Your task to perform on an android device: Open Google Maps Image 0: 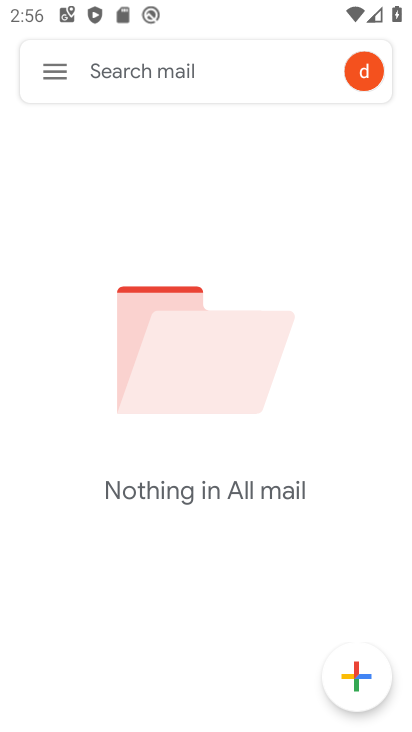
Step 0: press home button
Your task to perform on an android device: Open Google Maps Image 1: 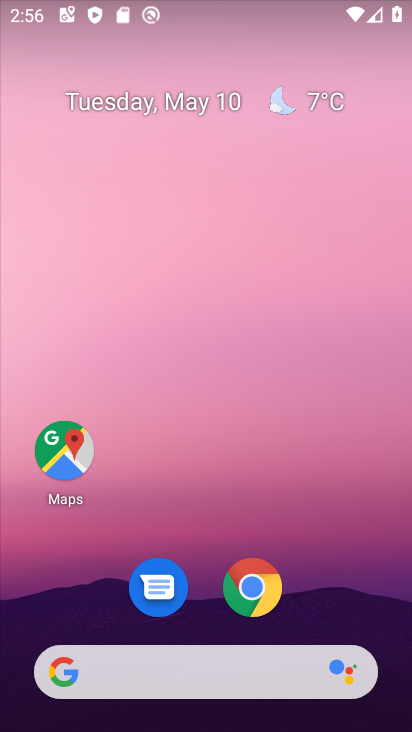
Step 1: click (53, 440)
Your task to perform on an android device: Open Google Maps Image 2: 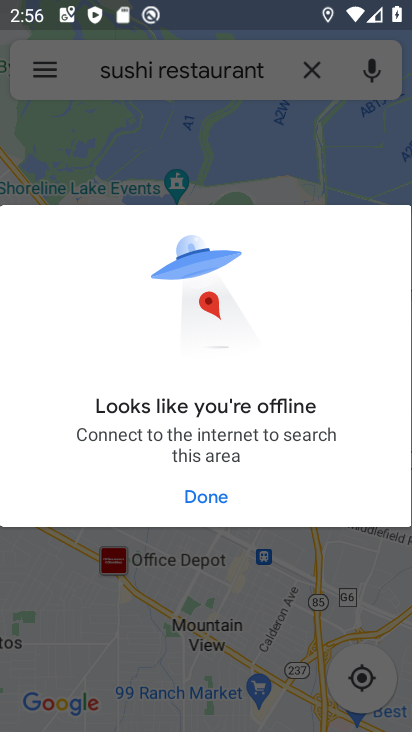
Step 2: click (213, 492)
Your task to perform on an android device: Open Google Maps Image 3: 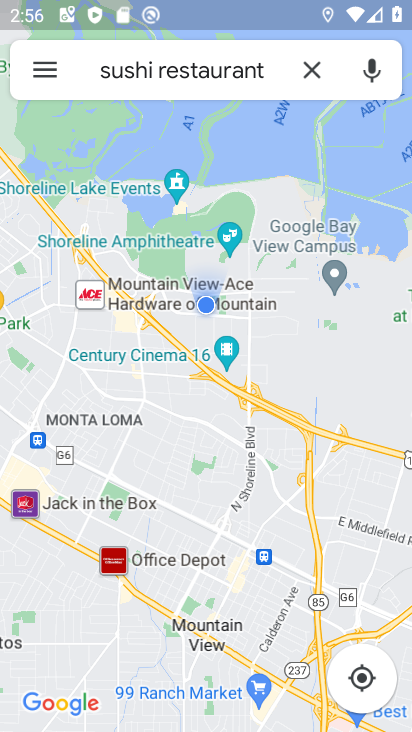
Step 3: task complete